Your task to perform on an android device: turn off wifi Image 0: 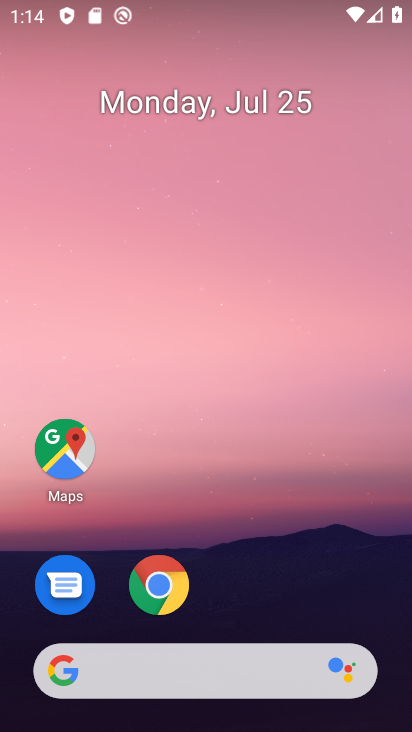
Step 0: drag from (186, 660) to (154, 34)
Your task to perform on an android device: turn off wifi Image 1: 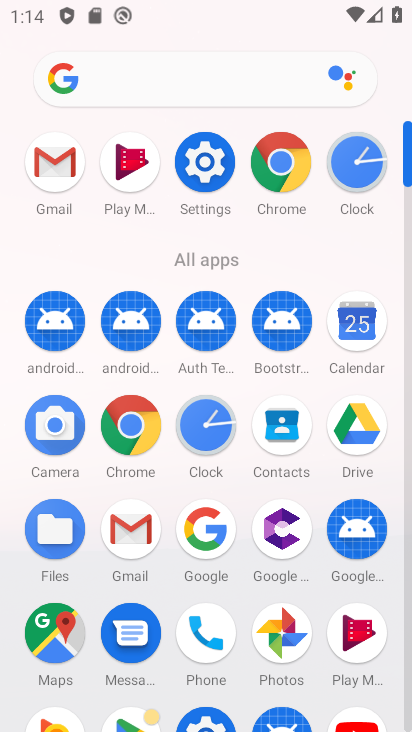
Step 1: click (199, 172)
Your task to perform on an android device: turn off wifi Image 2: 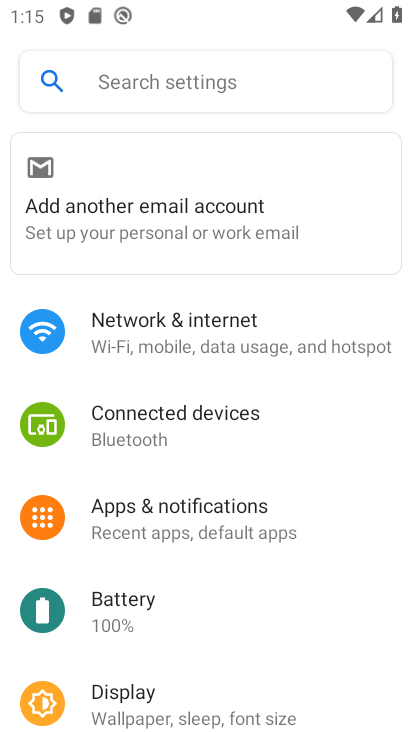
Step 2: click (146, 315)
Your task to perform on an android device: turn off wifi Image 3: 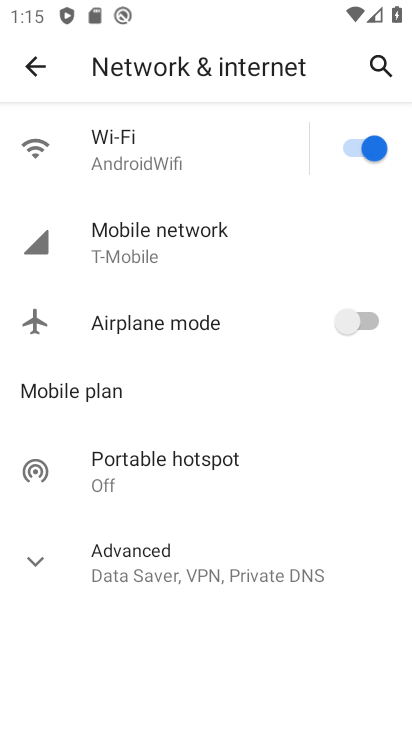
Step 3: click (359, 154)
Your task to perform on an android device: turn off wifi Image 4: 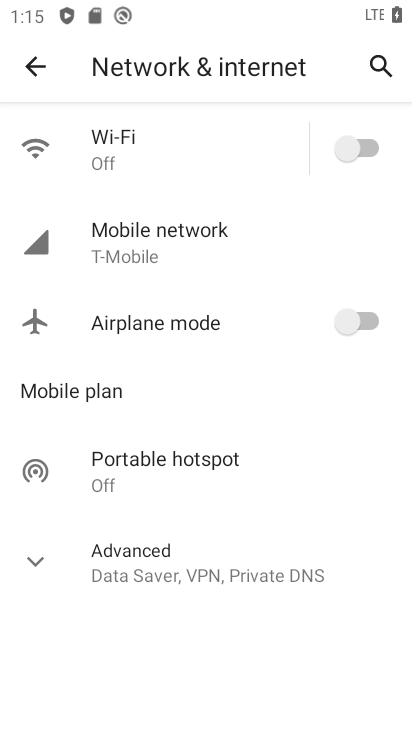
Step 4: task complete